Your task to perform on an android device: change text size in settings app Image 0: 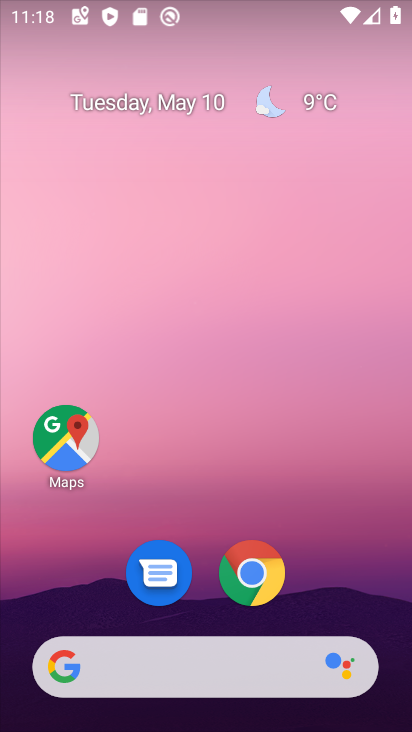
Step 0: drag from (205, 725) to (215, 22)
Your task to perform on an android device: change text size in settings app Image 1: 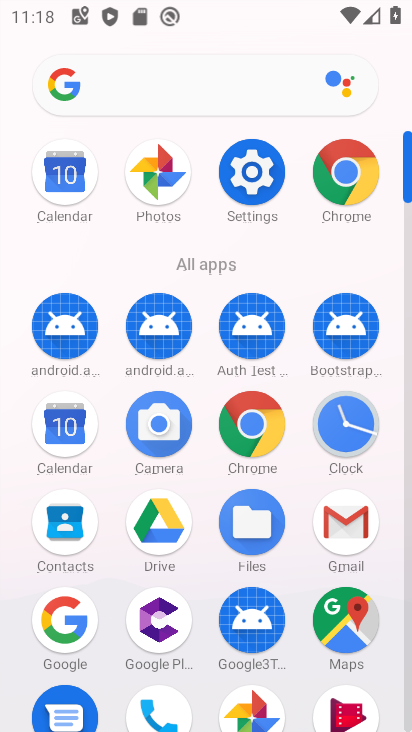
Step 1: click (246, 181)
Your task to perform on an android device: change text size in settings app Image 2: 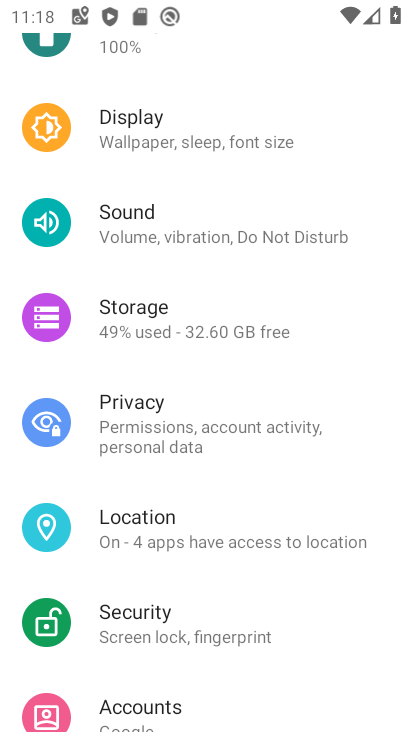
Step 2: click (194, 141)
Your task to perform on an android device: change text size in settings app Image 3: 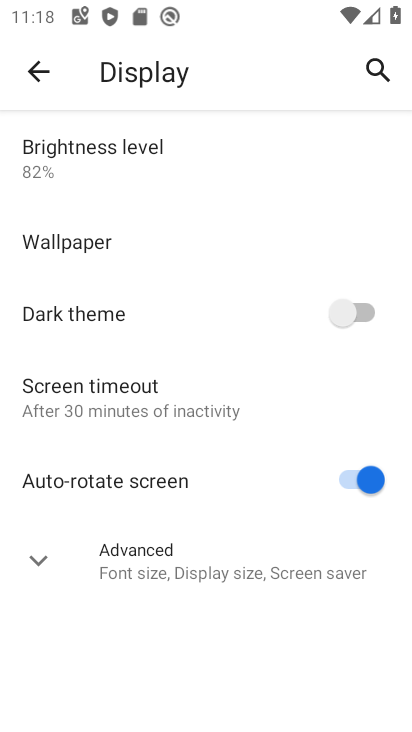
Step 3: click (146, 568)
Your task to perform on an android device: change text size in settings app Image 4: 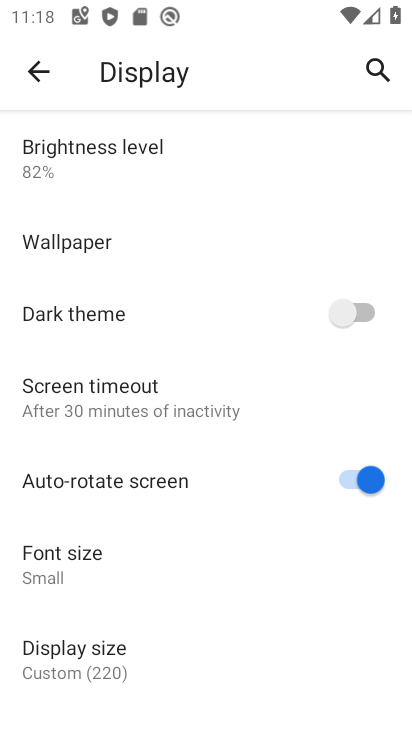
Step 4: click (49, 553)
Your task to perform on an android device: change text size in settings app Image 5: 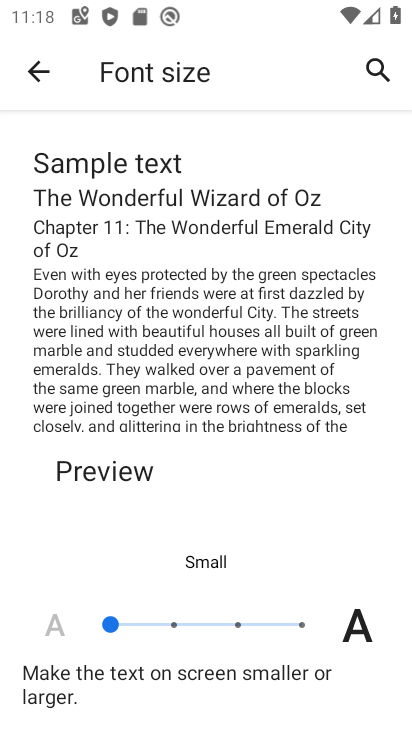
Step 5: click (173, 624)
Your task to perform on an android device: change text size in settings app Image 6: 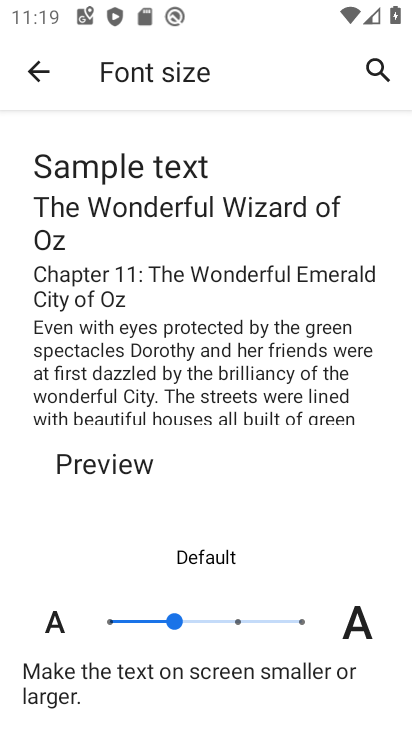
Step 6: task complete